Your task to perform on an android device: toggle improve location accuracy Image 0: 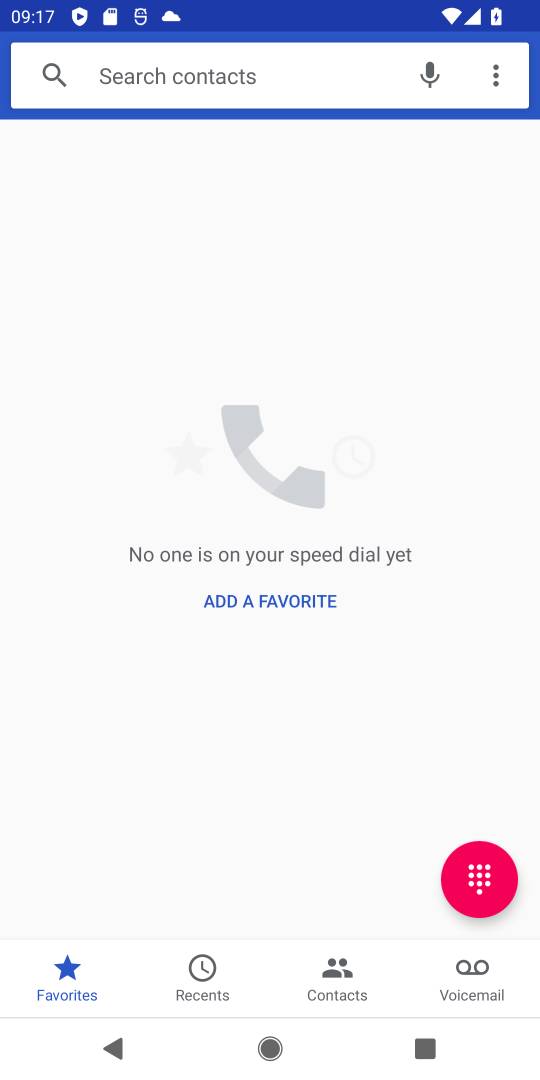
Step 0: press home button
Your task to perform on an android device: toggle improve location accuracy Image 1: 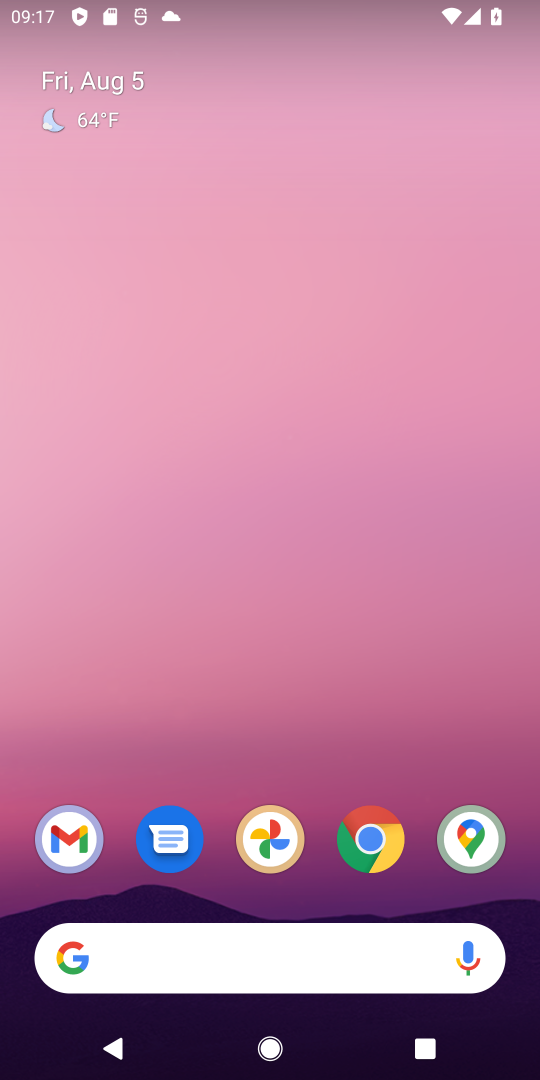
Step 1: drag from (329, 458) to (329, 286)
Your task to perform on an android device: toggle improve location accuracy Image 2: 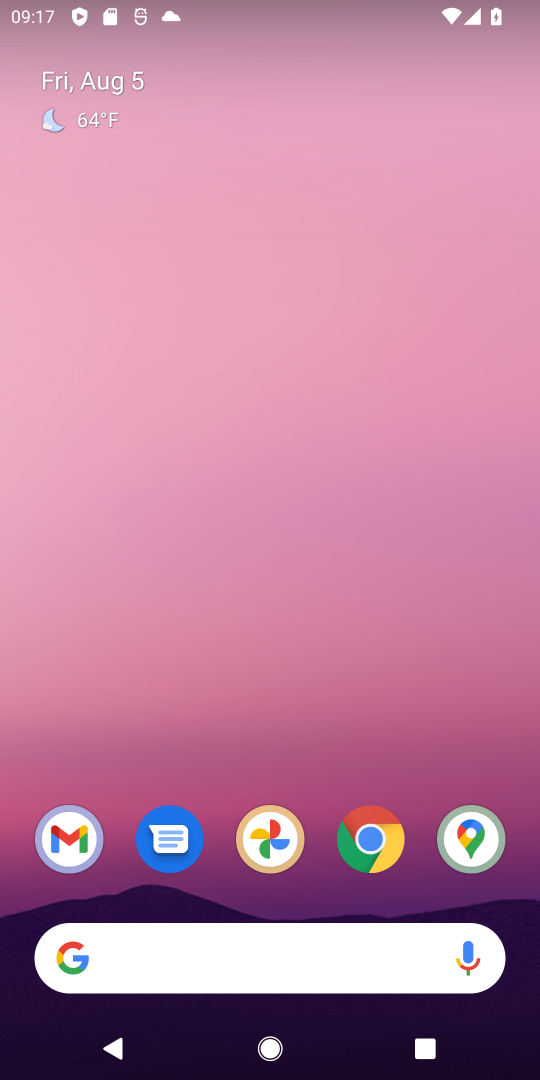
Step 2: drag from (320, 905) to (308, 122)
Your task to perform on an android device: toggle improve location accuracy Image 3: 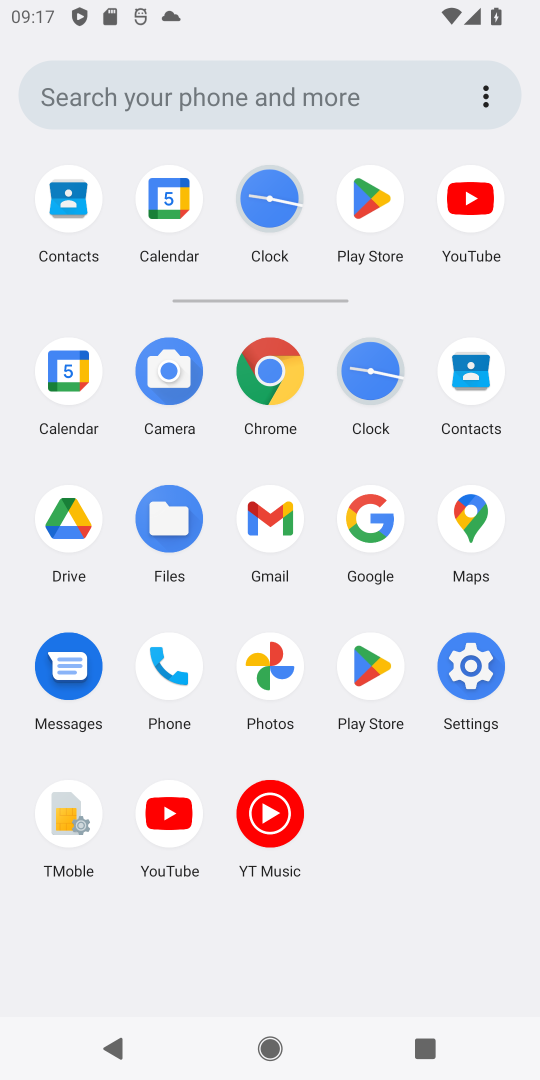
Step 3: click (485, 666)
Your task to perform on an android device: toggle improve location accuracy Image 4: 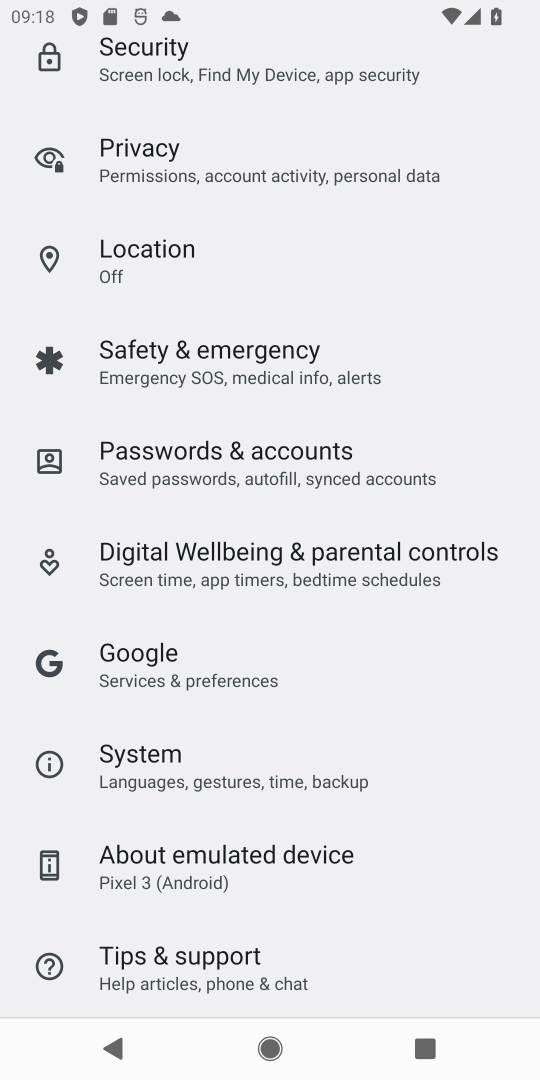
Step 4: click (127, 262)
Your task to perform on an android device: toggle improve location accuracy Image 5: 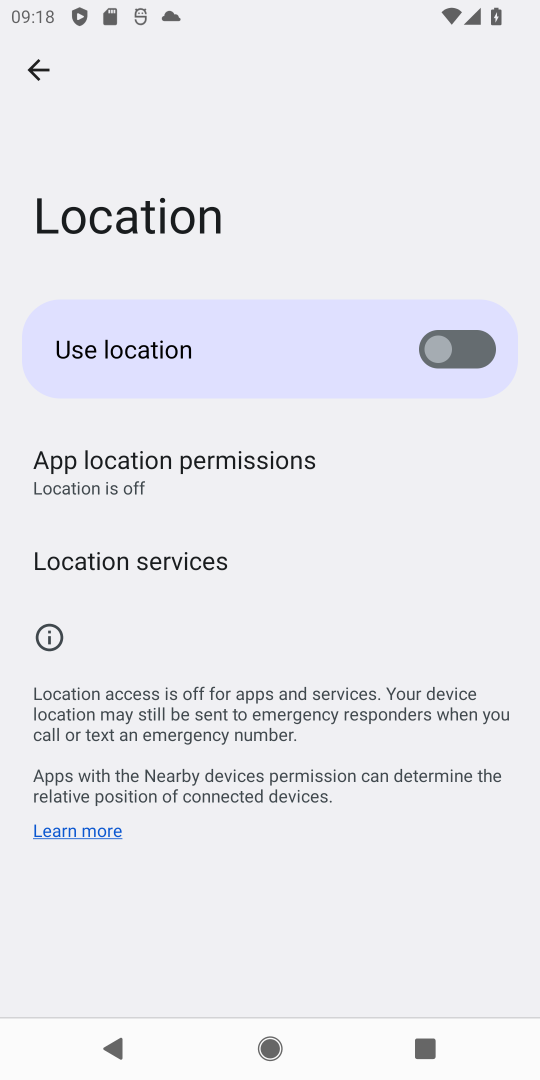
Step 5: click (139, 566)
Your task to perform on an android device: toggle improve location accuracy Image 6: 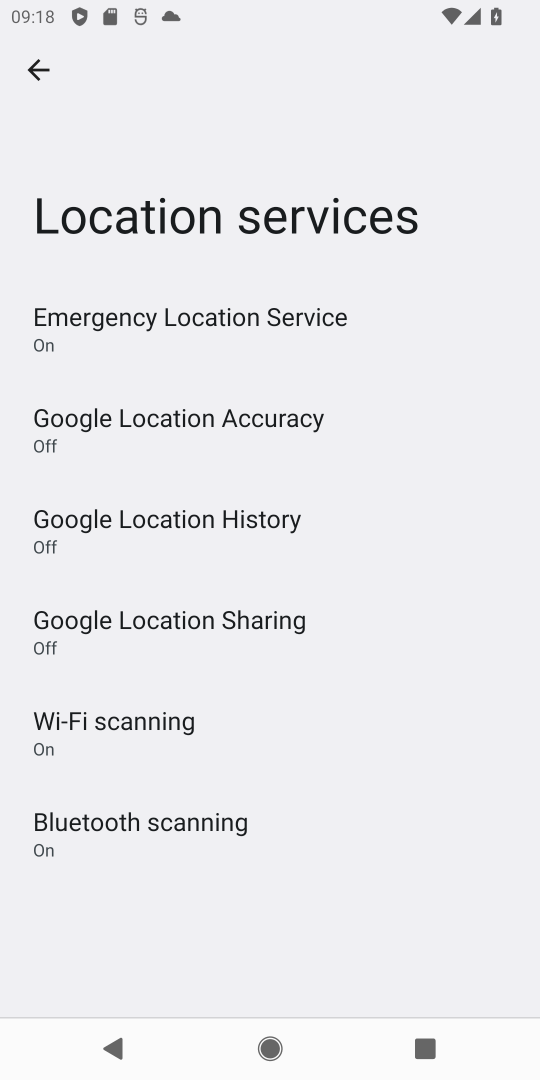
Step 6: click (180, 420)
Your task to perform on an android device: toggle improve location accuracy Image 7: 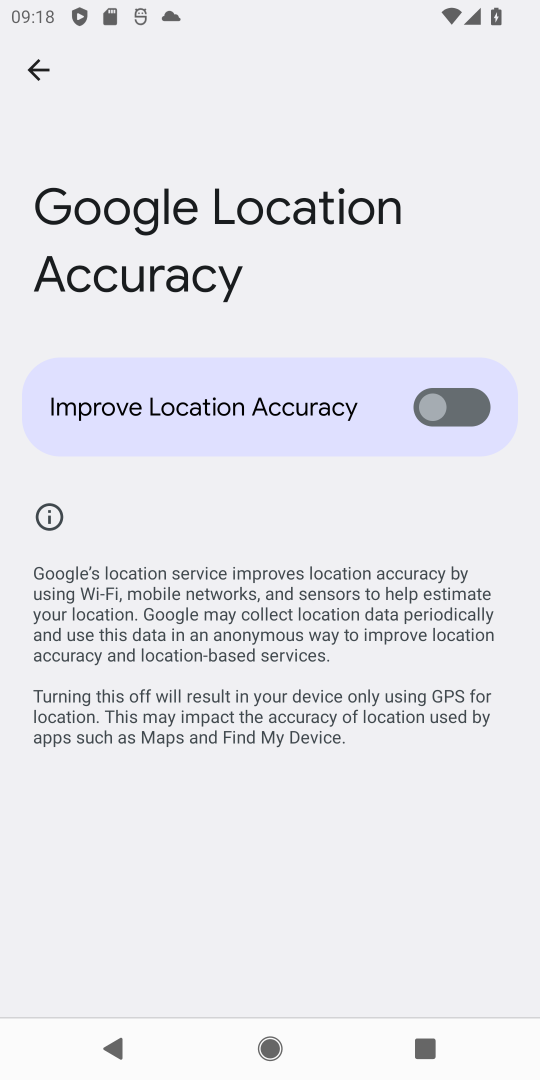
Step 7: click (475, 399)
Your task to perform on an android device: toggle improve location accuracy Image 8: 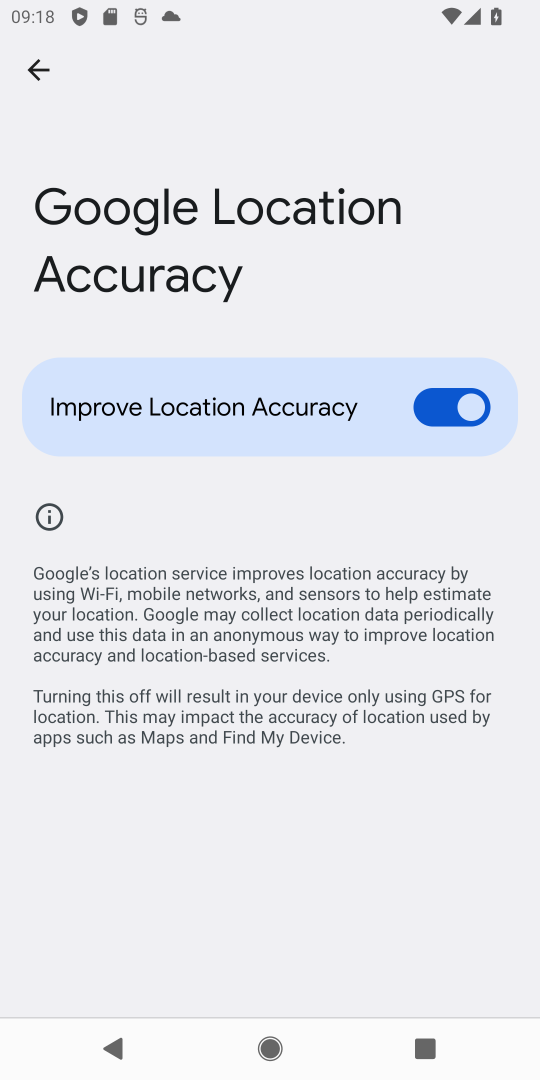
Step 8: task complete